Your task to perform on an android device: Open Google Chrome Image 0: 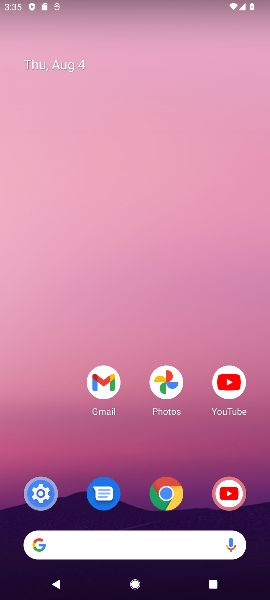
Step 0: click (152, 491)
Your task to perform on an android device: Open Google Chrome Image 1: 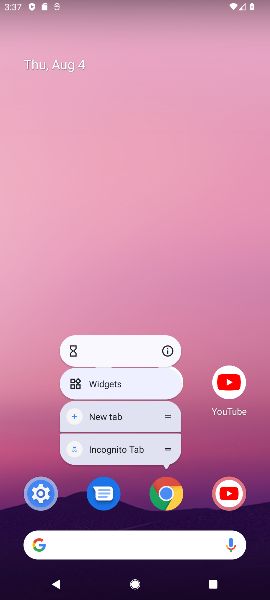
Step 1: click (165, 486)
Your task to perform on an android device: Open Google Chrome Image 2: 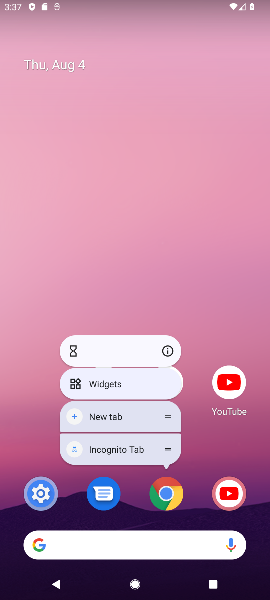
Step 2: click (167, 488)
Your task to perform on an android device: Open Google Chrome Image 3: 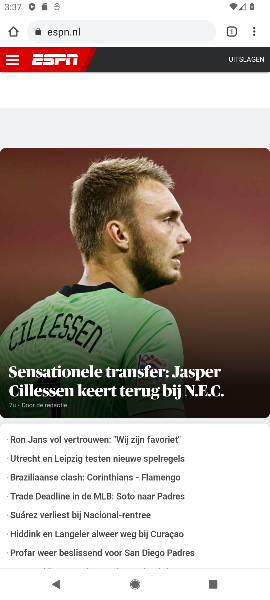
Step 3: task complete